Your task to perform on an android device: open app "HBO Max: Stream TV & Movies" (install if not already installed) Image 0: 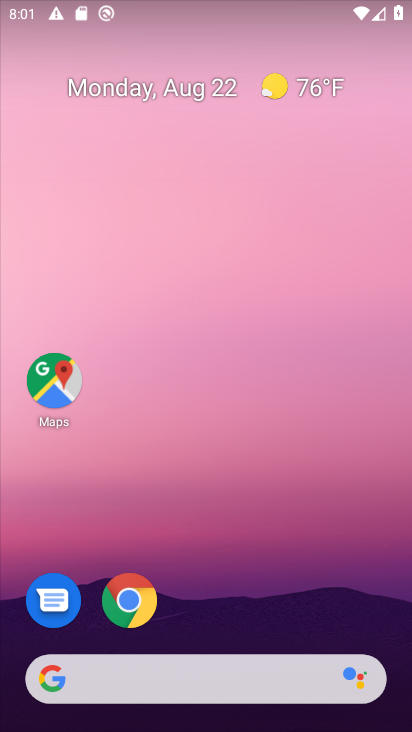
Step 0: drag from (207, 531) to (228, 158)
Your task to perform on an android device: open app "HBO Max: Stream TV & Movies" (install if not already installed) Image 1: 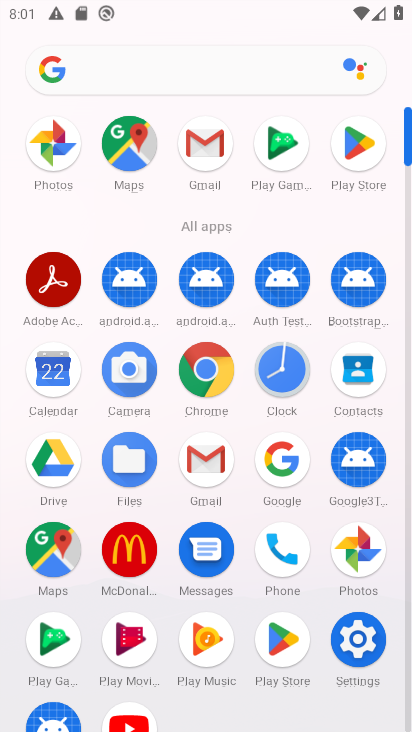
Step 1: click (339, 143)
Your task to perform on an android device: open app "HBO Max: Stream TV & Movies" (install if not already installed) Image 2: 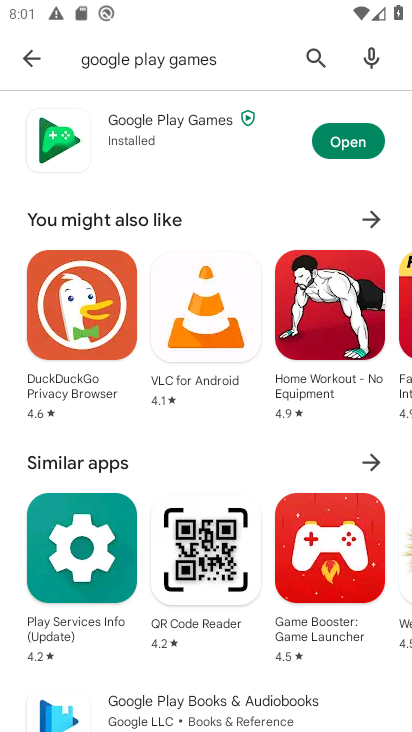
Step 2: click (317, 55)
Your task to perform on an android device: open app "HBO Max: Stream TV & Movies" (install if not already installed) Image 3: 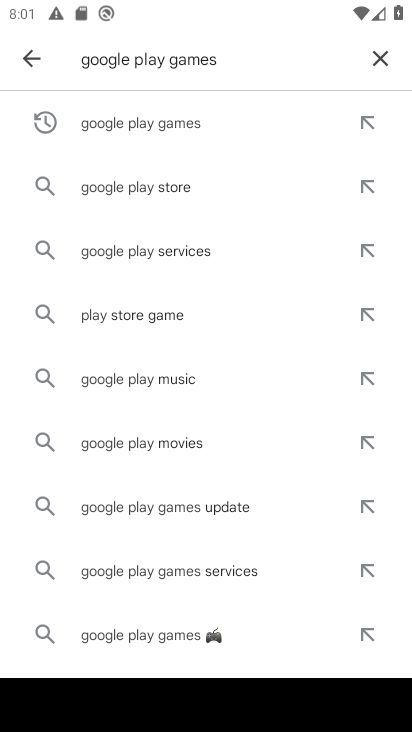
Step 3: click (376, 54)
Your task to perform on an android device: open app "HBO Max: Stream TV & Movies" (install if not already installed) Image 4: 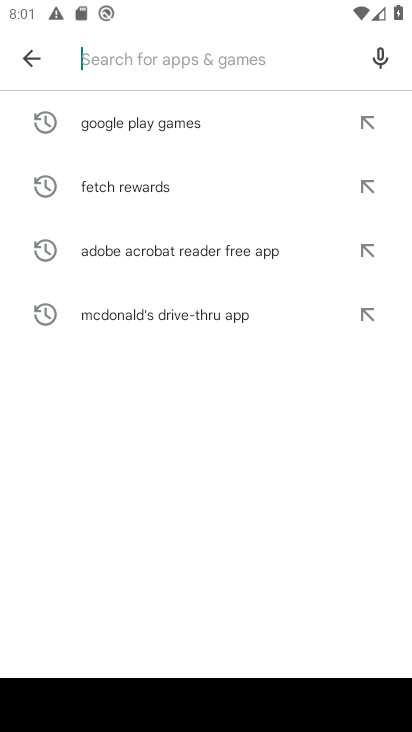
Step 4: type "HBO Max: Stream TV & Movies"
Your task to perform on an android device: open app "HBO Max: Stream TV & Movies" (install if not already installed) Image 5: 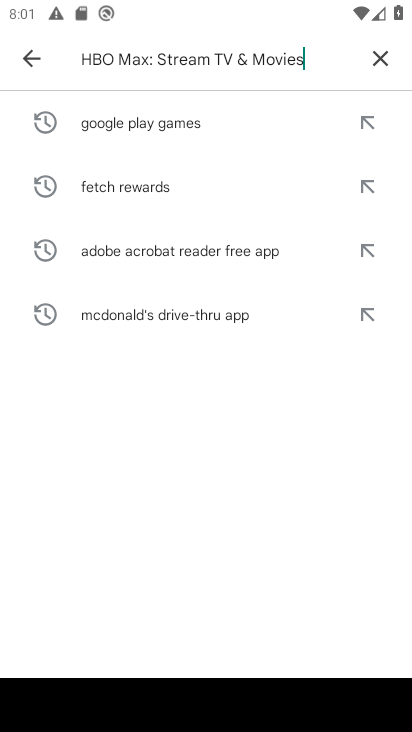
Step 5: type ""
Your task to perform on an android device: open app "HBO Max: Stream TV & Movies" (install if not already installed) Image 6: 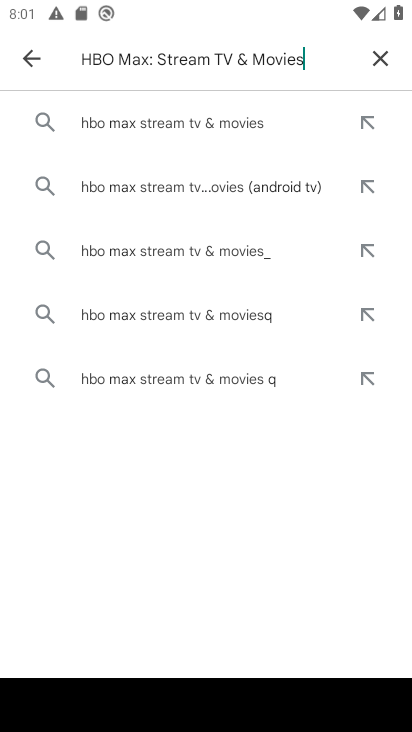
Step 6: click (227, 121)
Your task to perform on an android device: open app "HBO Max: Stream TV & Movies" (install if not already installed) Image 7: 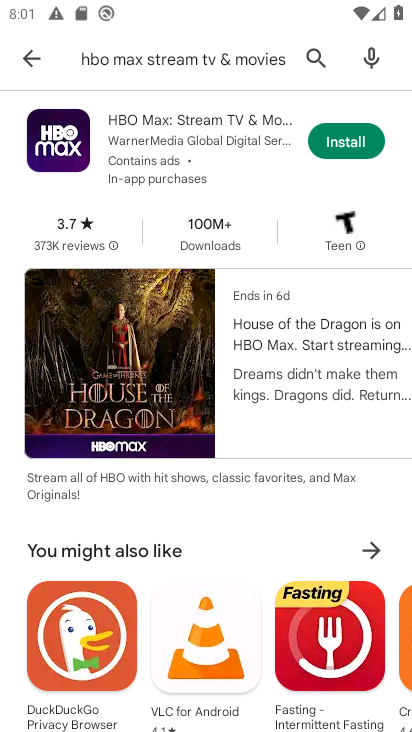
Step 7: click (340, 128)
Your task to perform on an android device: open app "HBO Max: Stream TV & Movies" (install if not already installed) Image 8: 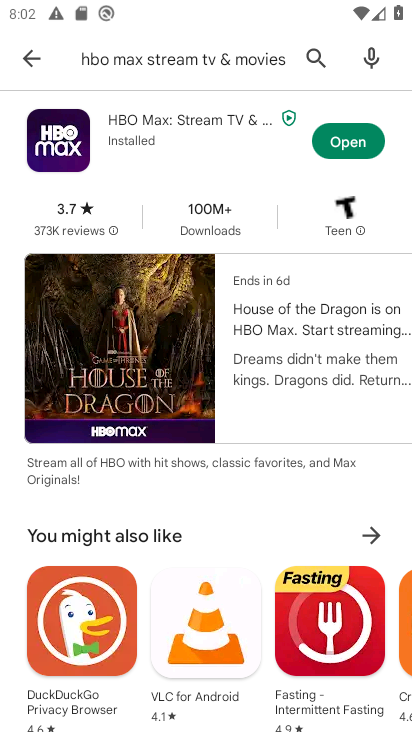
Step 8: click (354, 132)
Your task to perform on an android device: open app "HBO Max: Stream TV & Movies" (install if not already installed) Image 9: 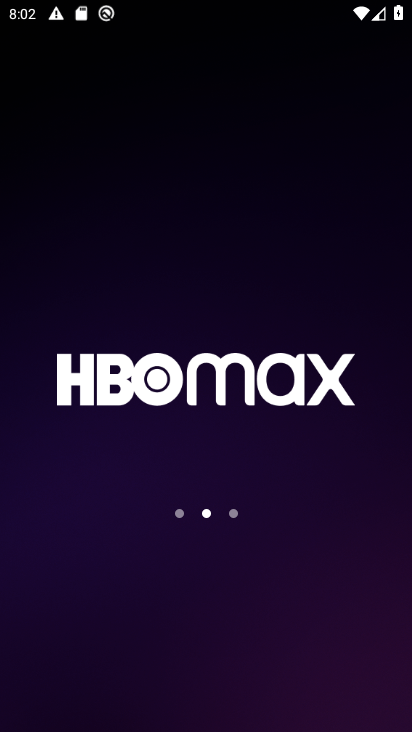
Step 9: task complete